Your task to perform on an android device: stop showing notifications on the lock screen Image 0: 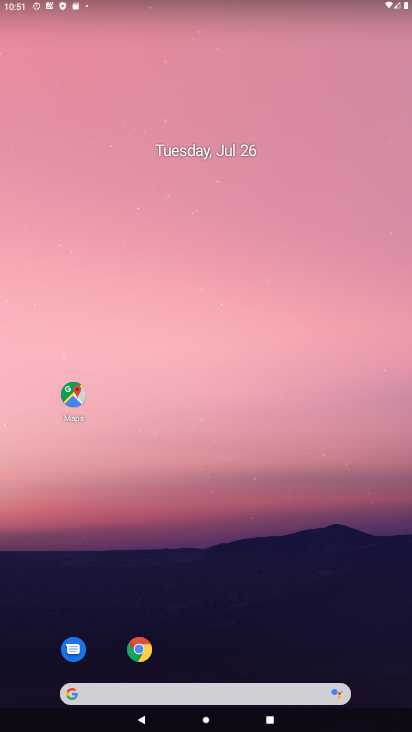
Step 0: drag from (183, 645) to (229, 0)
Your task to perform on an android device: stop showing notifications on the lock screen Image 1: 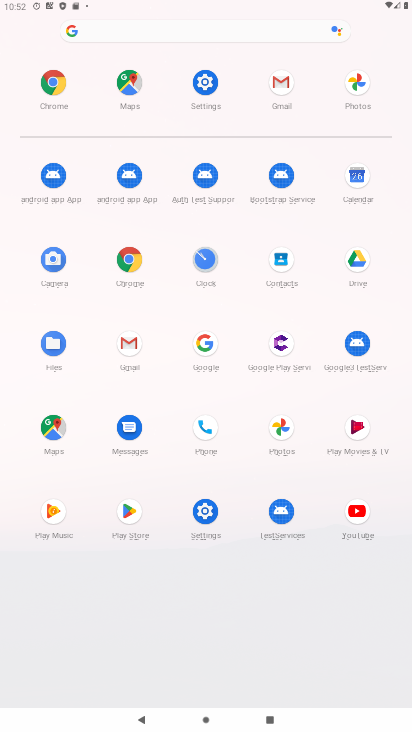
Step 1: click (207, 503)
Your task to perform on an android device: stop showing notifications on the lock screen Image 2: 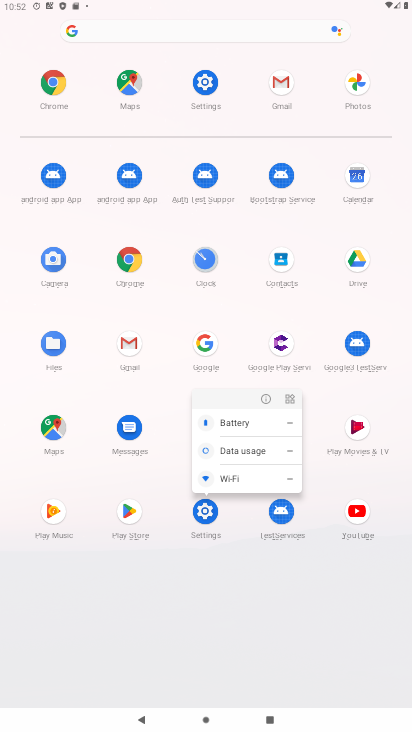
Step 2: click (266, 393)
Your task to perform on an android device: stop showing notifications on the lock screen Image 3: 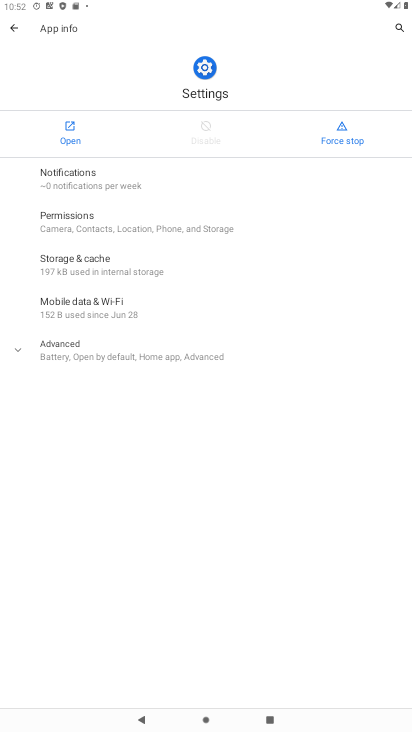
Step 3: click (68, 127)
Your task to perform on an android device: stop showing notifications on the lock screen Image 4: 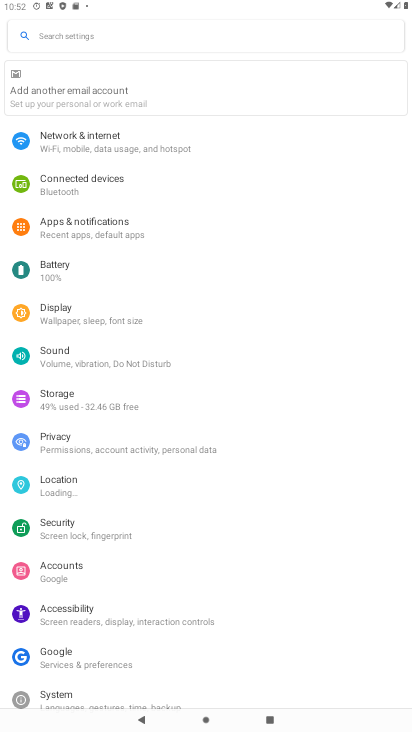
Step 4: press home button
Your task to perform on an android device: stop showing notifications on the lock screen Image 5: 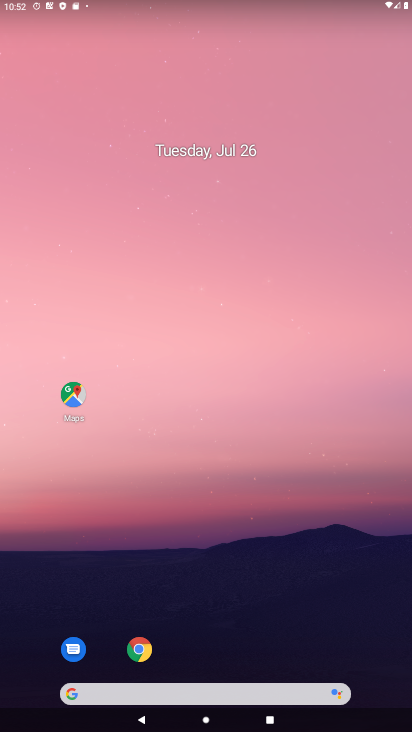
Step 5: drag from (233, 556) to (259, 71)
Your task to perform on an android device: stop showing notifications on the lock screen Image 6: 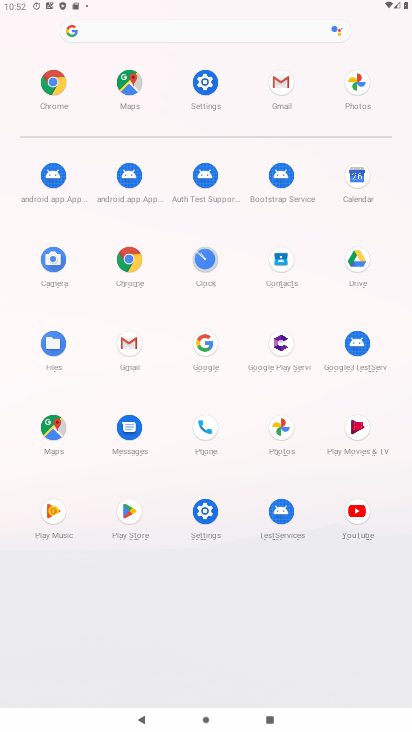
Step 6: click (197, 79)
Your task to perform on an android device: stop showing notifications on the lock screen Image 7: 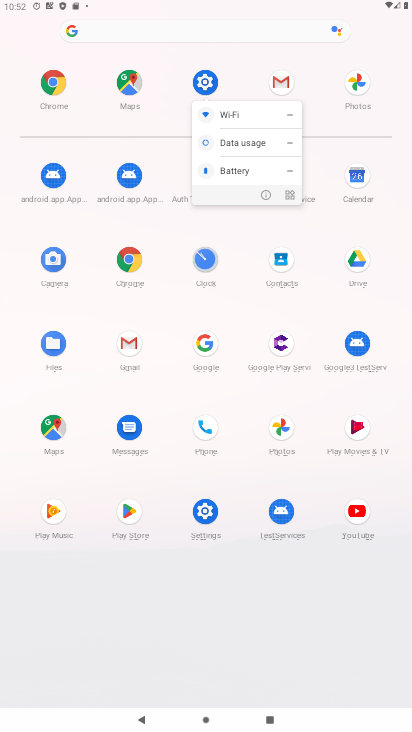
Step 7: click (196, 511)
Your task to perform on an android device: stop showing notifications on the lock screen Image 8: 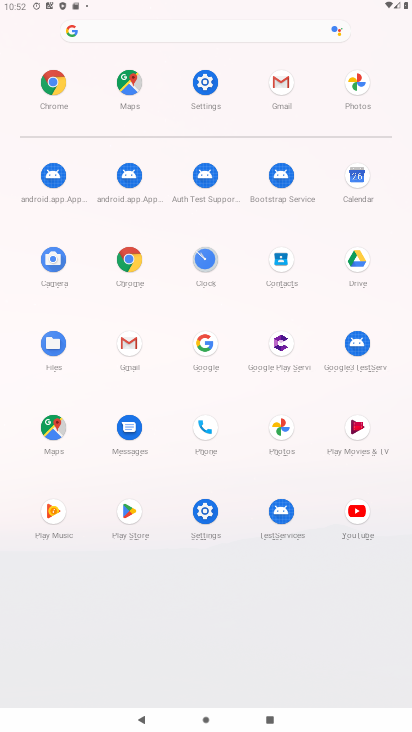
Step 8: click (201, 512)
Your task to perform on an android device: stop showing notifications on the lock screen Image 9: 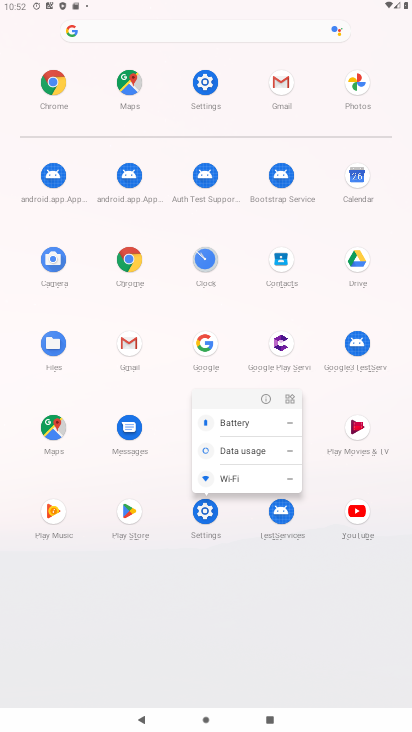
Step 9: click (264, 403)
Your task to perform on an android device: stop showing notifications on the lock screen Image 10: 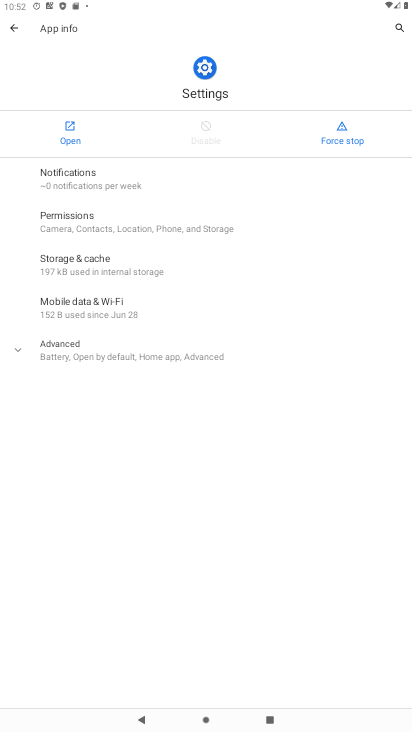
Step 10: click (65, 127)
Your task to perform on an android device: stop showing notifications on the lock screen Image 11: 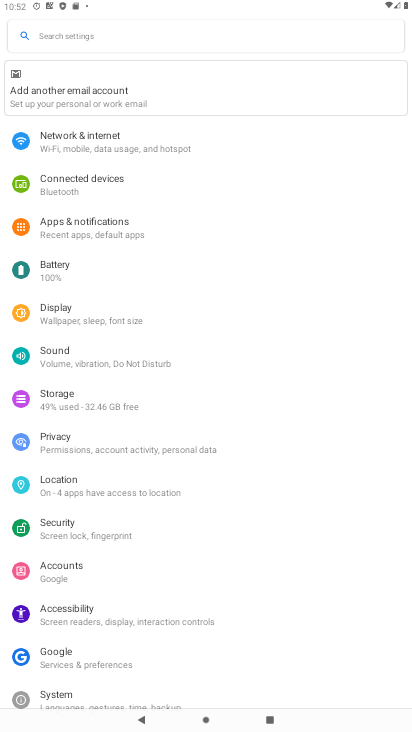
Step 11: click (143, 227)
Your task to perform on an android device: stop showing notifications on the lock screen Image 12: 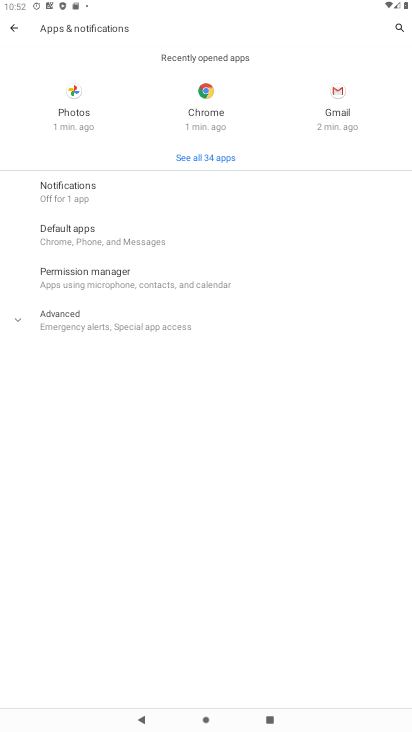
Step 12: click (57, 187)
Your task to perform on an android device: stop showing notifications on the lock screen Image 13: 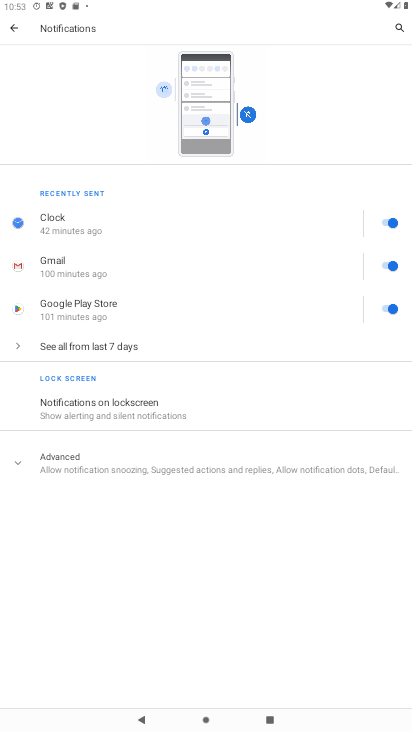
Step 13: click (145, 415)
Your task to perform on an android device: stop showing notifications on the lock screen Image 14: 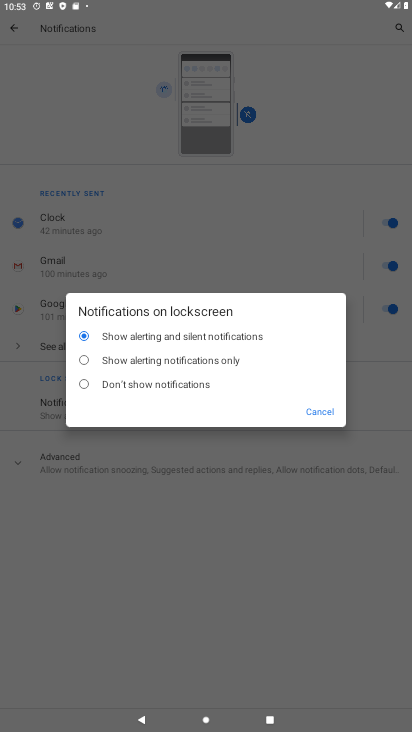
Step 14: click (104, 382)
Your task to perform on an android device: stop showing notifications on the lock screen Image 15: 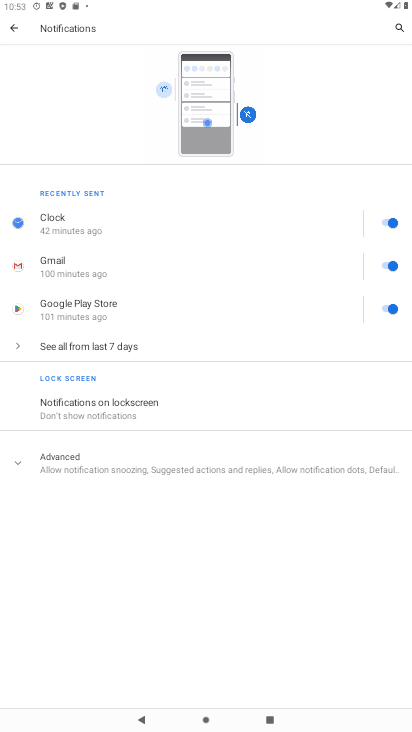
Step 15: task complete